Your task to perform on an android device: check android version Image 0: 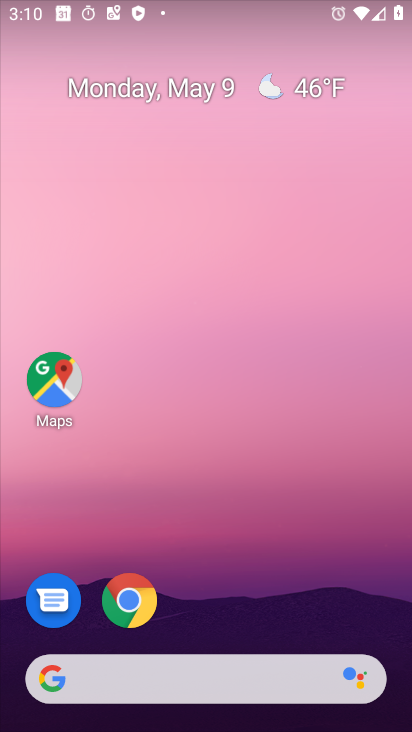
Step 0: drag from (253, 554) to (324, 77)
Your task to perform on an android device: check android version Image 1: 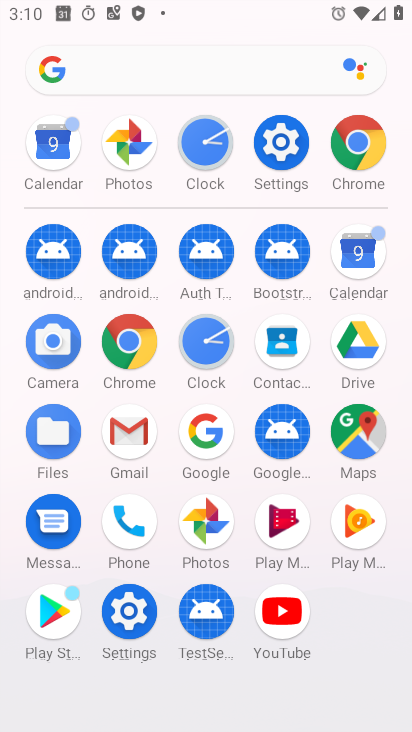
Step 1: click (283, 154)
Your task to perform on an android device: check android version Image 2: 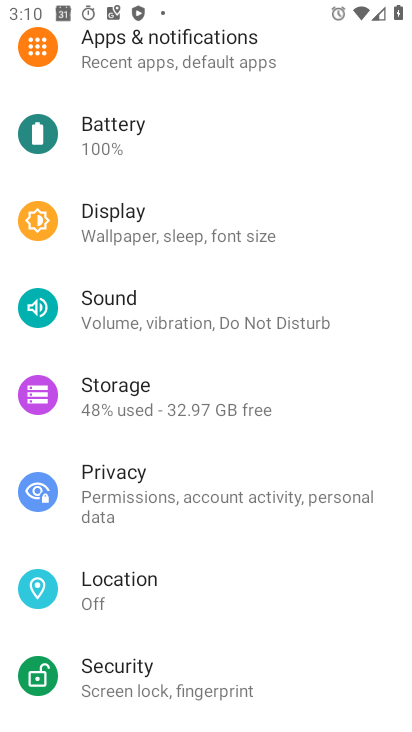
Step 2: drag from (173, 661) to (319, 30)
Your task to perform on an android device: check android version Image 3: 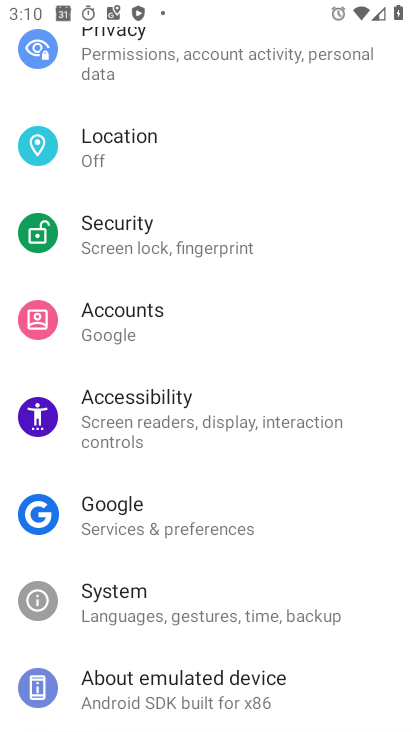
Step 3: drag from (163, 703) to (271, 117)
Your task to perform on an android device: check android version Image 4: 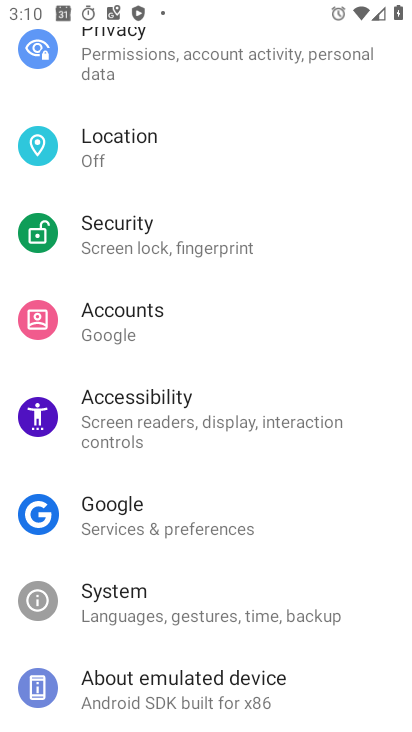
Step 4: click (141, 659)
Your task to perform on an android device: check android version Image 5: 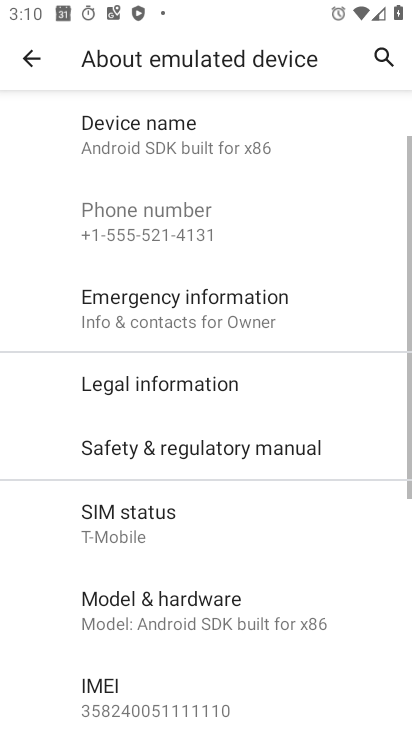
Step 5: drag from (162, 682) to (301, 83)
Your task to perform on an android device: check android version Image 6: 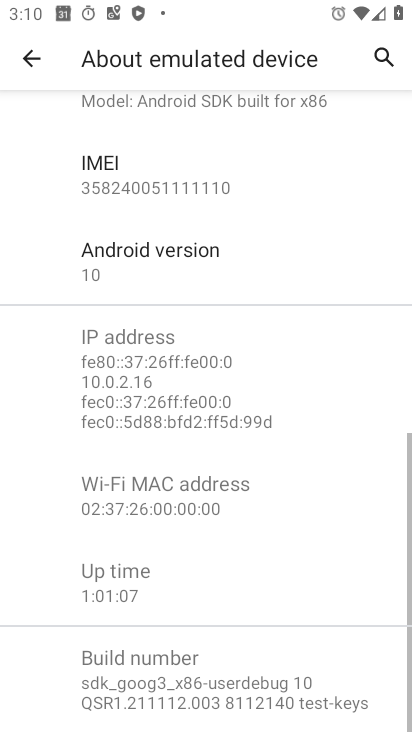
Step 6: click (126, 259)
Your task to perform on an android device: check android version Image 7: 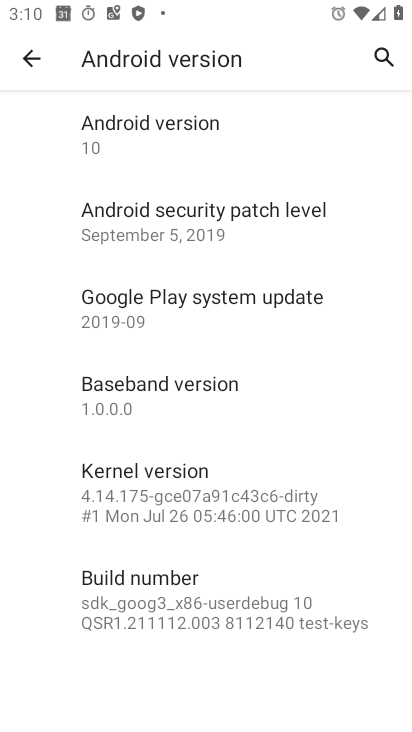
Step 7: task complete